Your task to perform on an android device: change your default location settings in chrome Image 0: 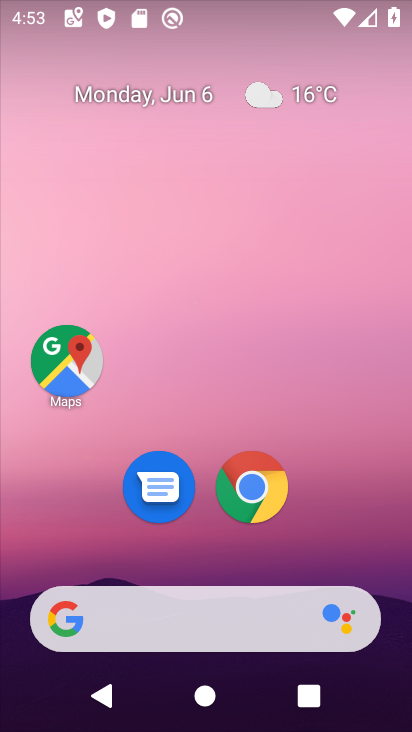
Step 0: click (242, 497)
Your task to perform on an android device: change your default location settings in chrome Image 1: 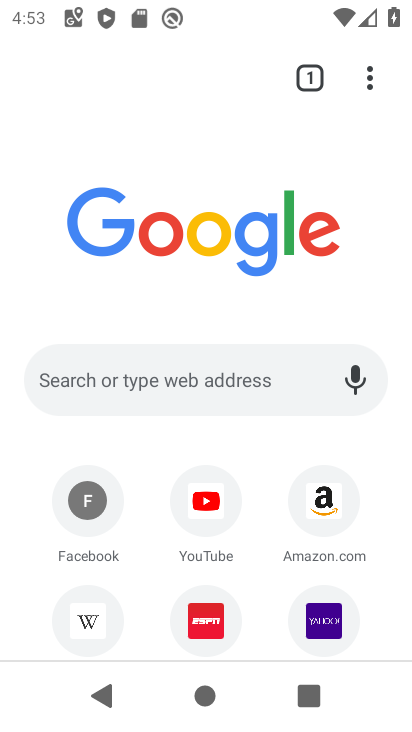
Step 1: click (368, 77)
Your task to perform on an android device: change your default location settings in chrome Image 2: 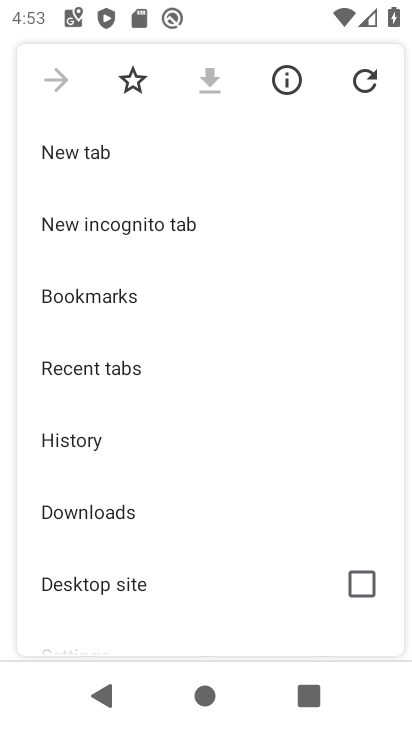
Step 2: drag from (223, 560) to (242, 108)
Your task to perform on an android device: change your default location settings in chrome Image 3: 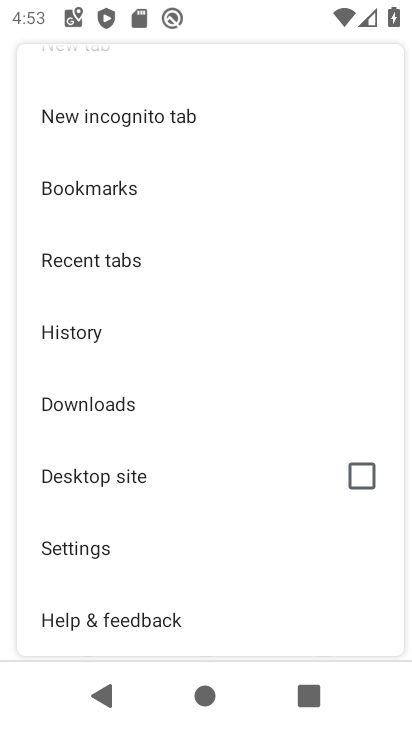
Step 3: click (150, 559)
Your task to perform on an android device: change your default location settings in chrome Image 4: 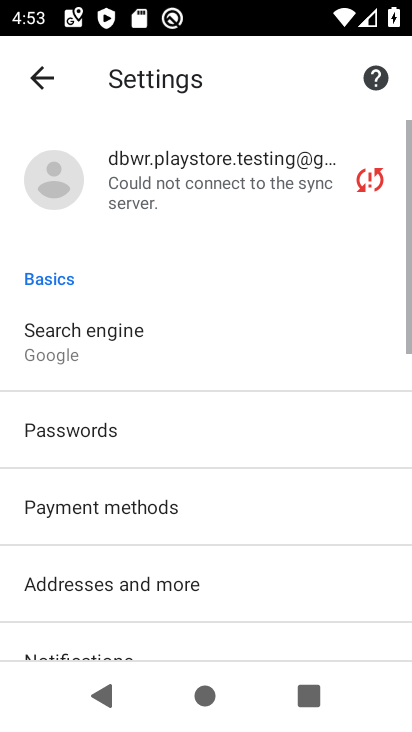
Step 4: drag from (261, 449) to (286, 224)
Your task to perform on an android device: change your default location settings in chrome Image 5: 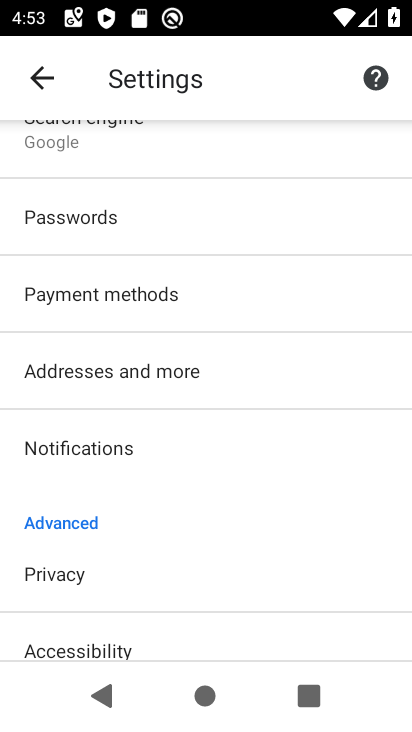
Step 5: drag from (232, 527) to (230, 315)
Your task to perform on an android device: change your default location settings in chrome Image 6: 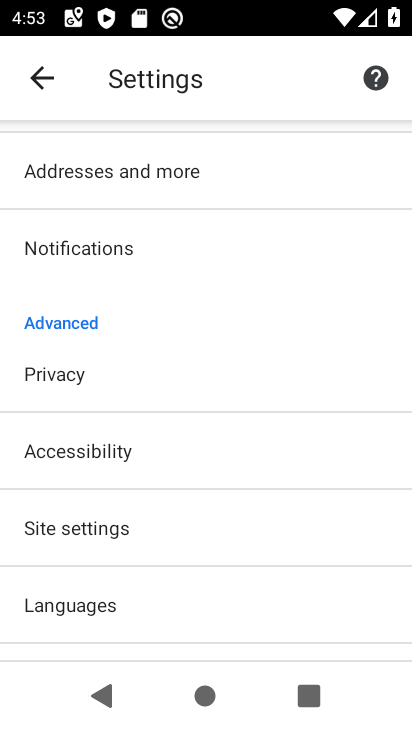
Step 6: click (191, 518)
Your task to perform on an android device: change your default location settings in chrome Image 7: 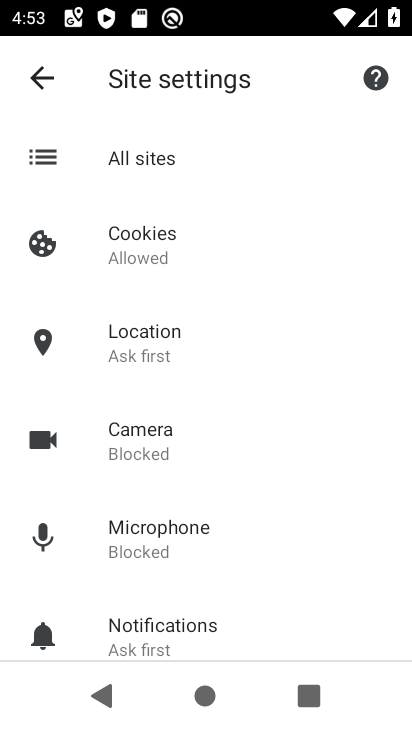
Step 7: click (177, 335)
Your task to perform on an android device: change your default location settings in chrome Image 8: 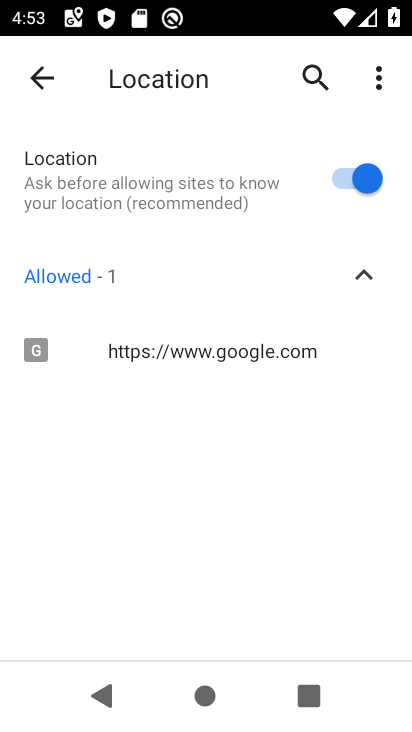
Step 8: click (347, 169)
Your task to perform on an android device: change your default location settings in chrome Image 9: 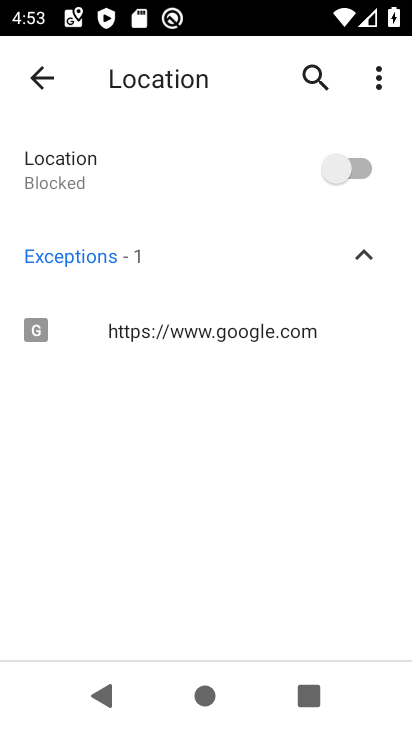
Step 9: task complete